Your task to perform on an android device: change the clock display to analog Image 0: 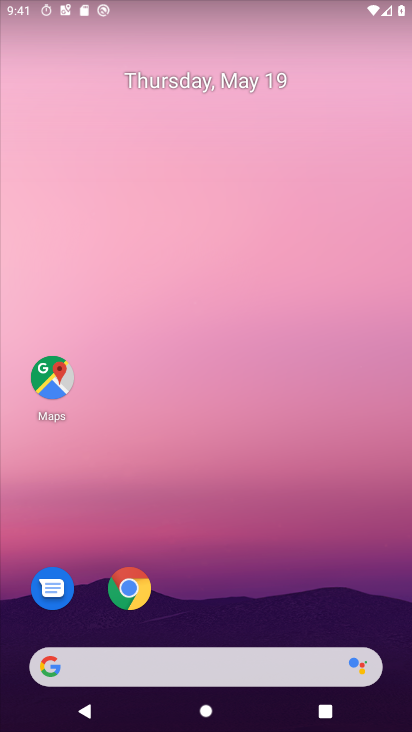
Step 0: press home button
Your task to perform on an android device: change the clock display to analog Image 1: 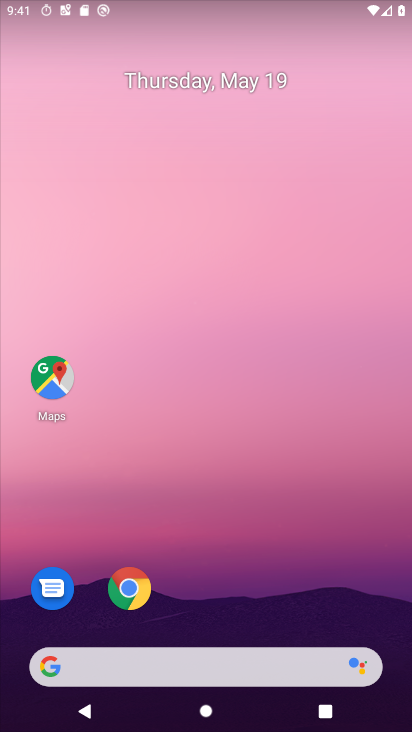
Step 1: drag from (210, 660) to (329, 284)
Your task to perform on an android device: change the clock display to analog Image 2: 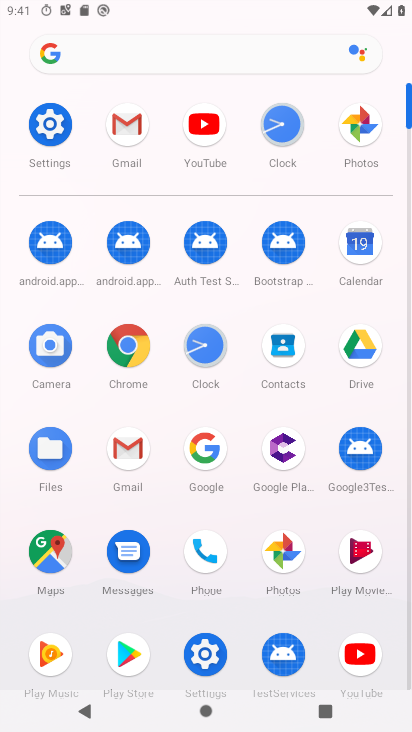
Step 2: click (280, 137)
Your task to perform on an android device: change the clock display to analog Image 3: 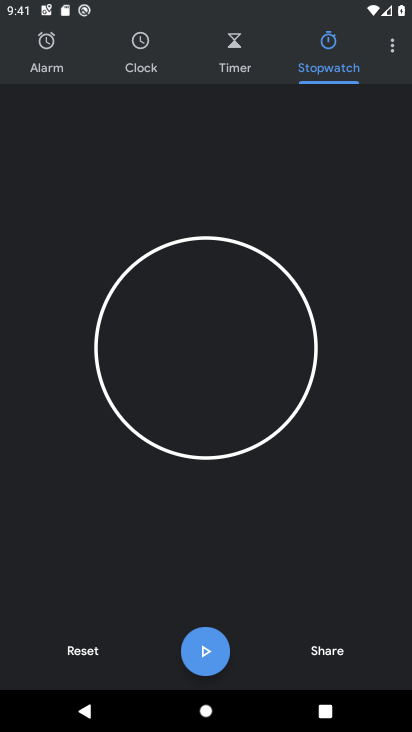
Step 3: click (392, 44)
Your task to perform on an android device: change the clock display to analog Image 4: 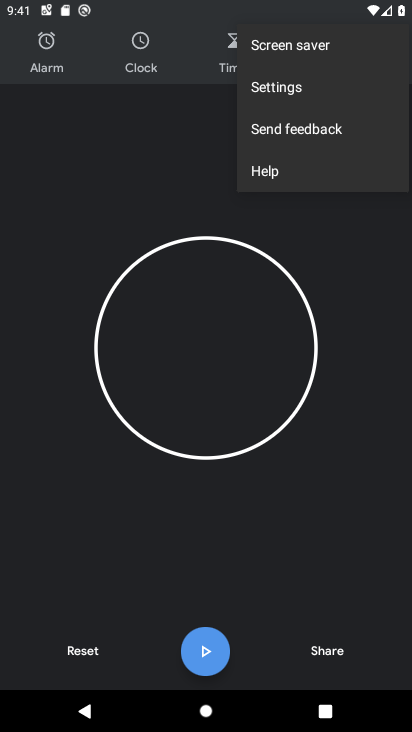
Step 4: click (302, 88)
Your task to perform on an android device: change the clock display to analog Image 5: 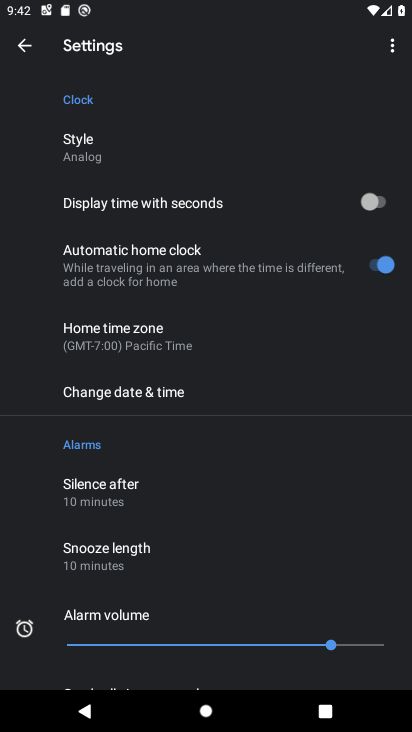
Step 5: task complete